Your task to perform on an android device: Open settings on Google Maps Image 0: 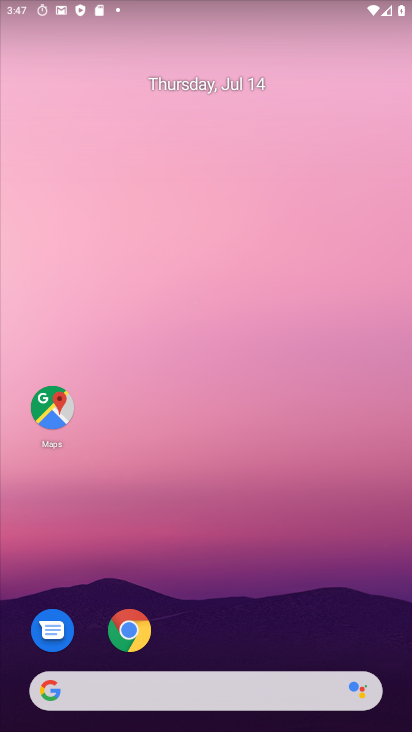
Step 0: drag from (208, 648) to (260, 204)
Your task to perform on an android device: Open settings on Google Maps Image 1: 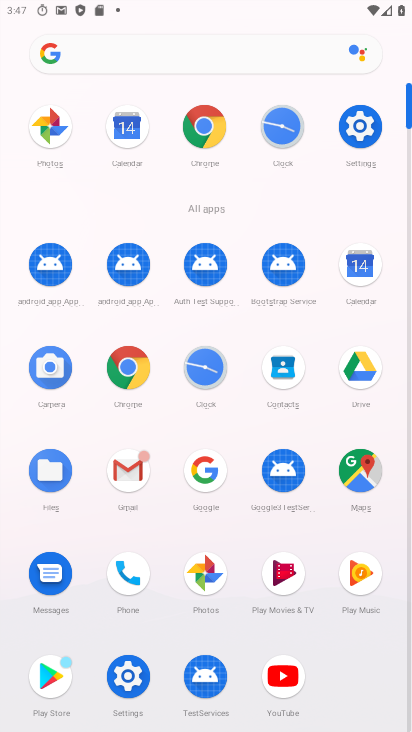
Step 1: click (348, 476)
Your task to perform on an android device: Open settings on Google Maps Image 2: 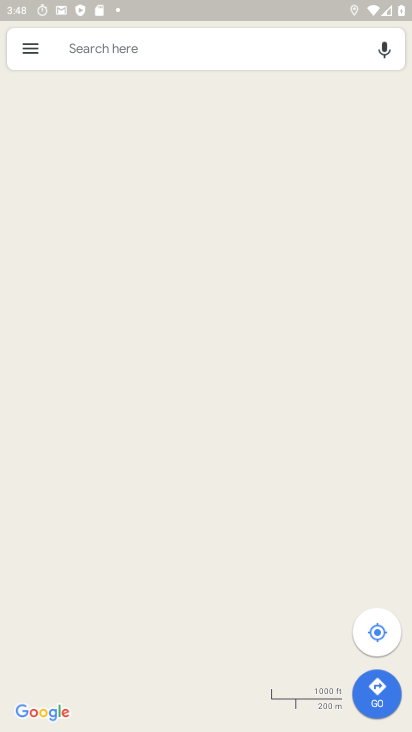
Step 2: click (35, 51)
Your task to perform on an android device: Open settings on Google Maps Image 3: 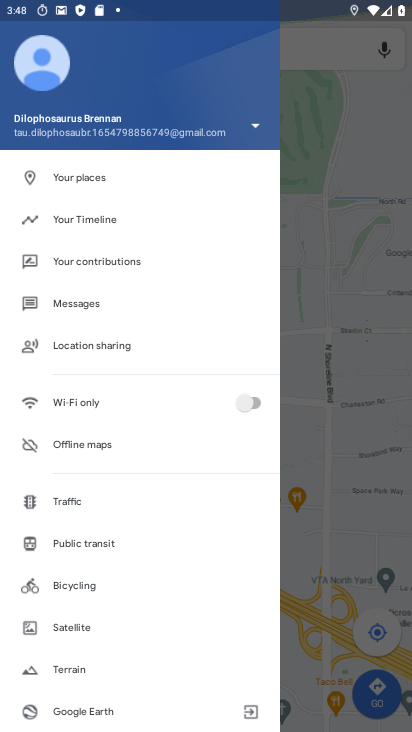
Step 3: drag from (119, 648) to (171, 354)
Your task to perform on an android device: Open settings on Google Maps Image 4: 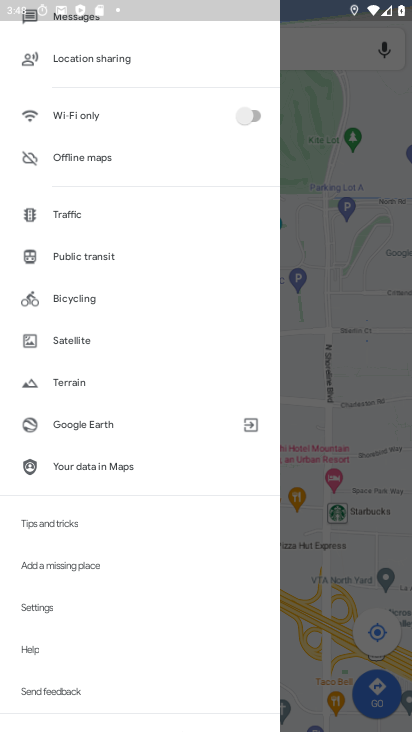
Step 4: click (52, 608)
Your task to perform on an android device: Open settings on Google Maps Image 5: 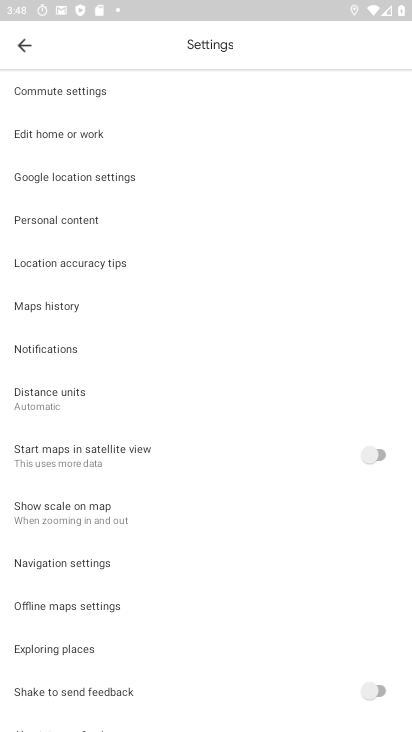
Step 5: task complete